Your task to perform on an android device: turn on the 12-hour format for clock Image 0: 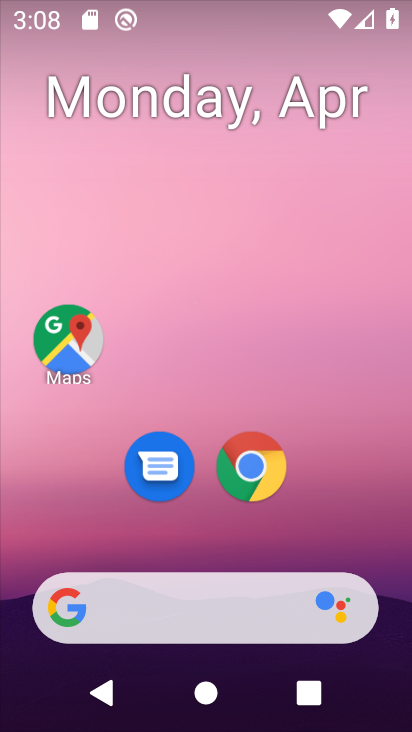
Step 0: drag from (309, 485) to (291, 163)
Your task to perform on an android device: turn on the 12-hour format for clock Image 1: 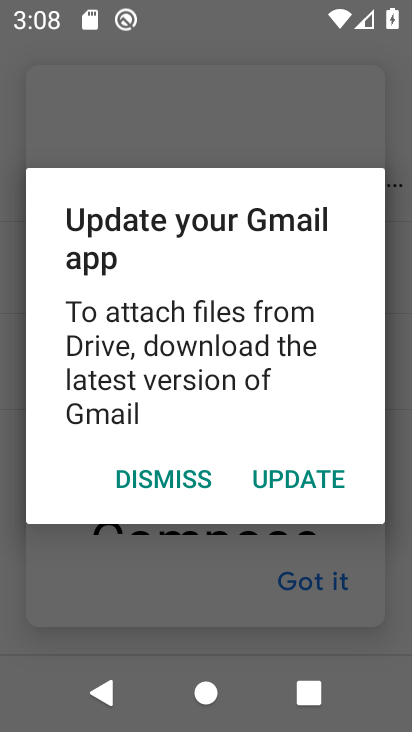
Step 1: press home button
Your task to perform on an android device: turn on the 12-hour format for clock Image 2: 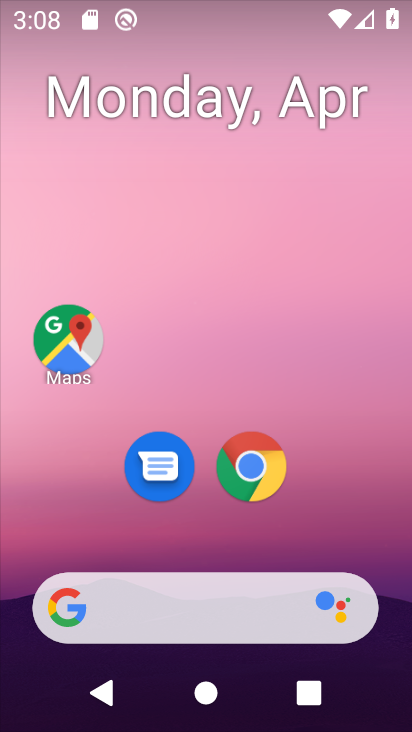
Step 2: drag from (356, 505) to (336, 133)
Your task to perform on an android device: turn on the 12-hour format for clock Image 3: 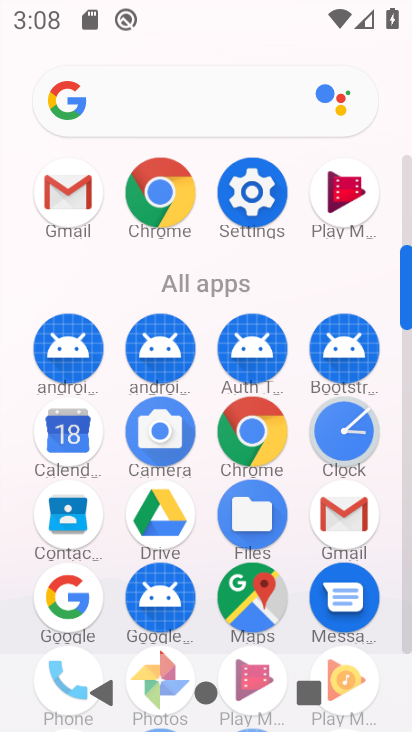
Step 3: drag from (294, 635) to (314, 482)
Your task to perform on an android device: turn on the 12-hour format for clock Image 4: 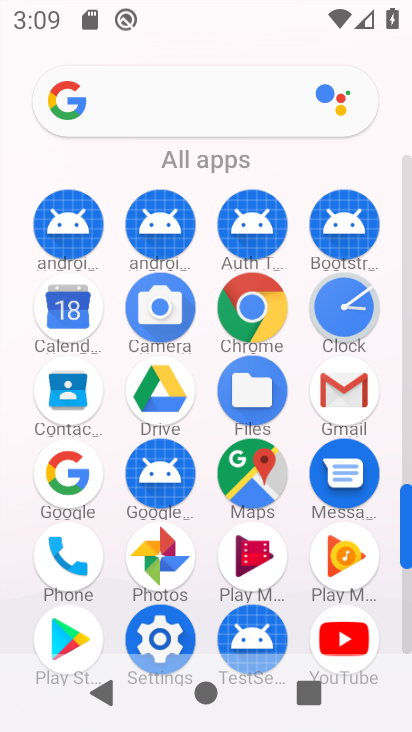
Step 4: click (346, 321)
Your task to perform on an android device: turn on the 12-hour format for clock Image 5: 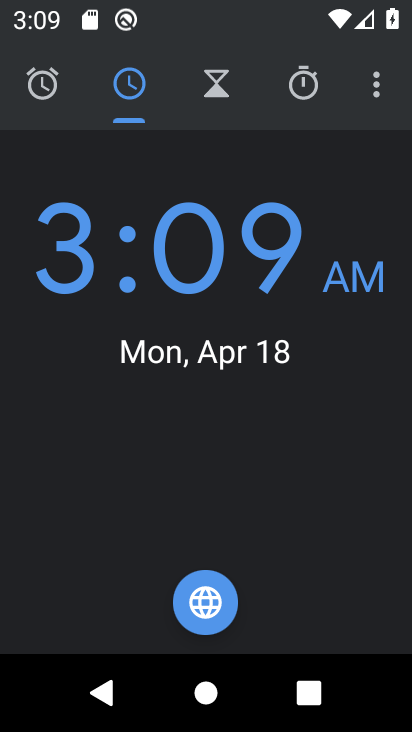
Step 5: click (375, 90)
Your task to perform on an android device: turn on the 12-hour format for clock Image 6: 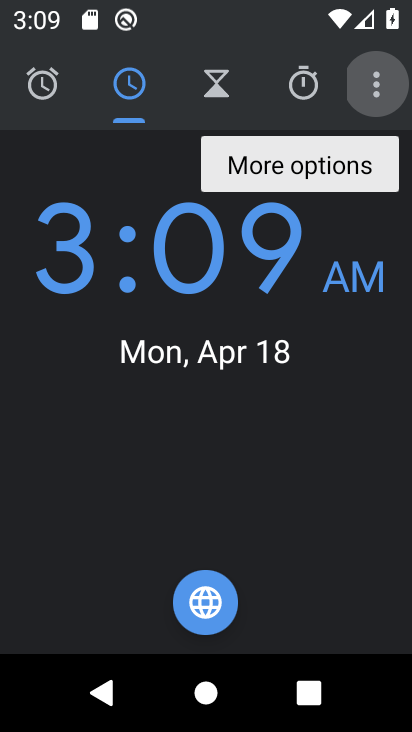
Step 6: click (382, 80)
Your task to perform on an android device: turn on the 12-hour format for clock Image 7: 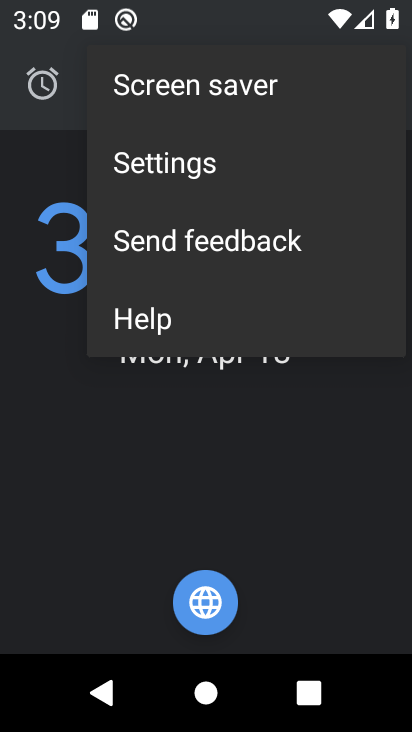
Step 7: click (197, 166)
Your task to perform on an android device: turn on the 12-hour format for clock Image 8: 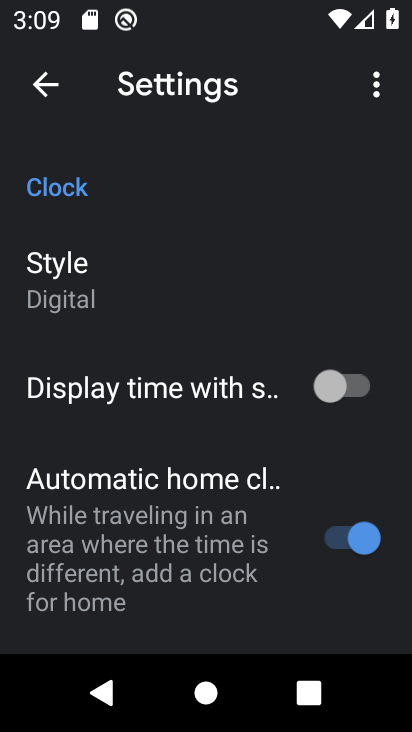
Step 8: drag from (189, 579) to (179, 197)
Your task to perform on an android device: turn on the 12-hour format for clock Image 9: 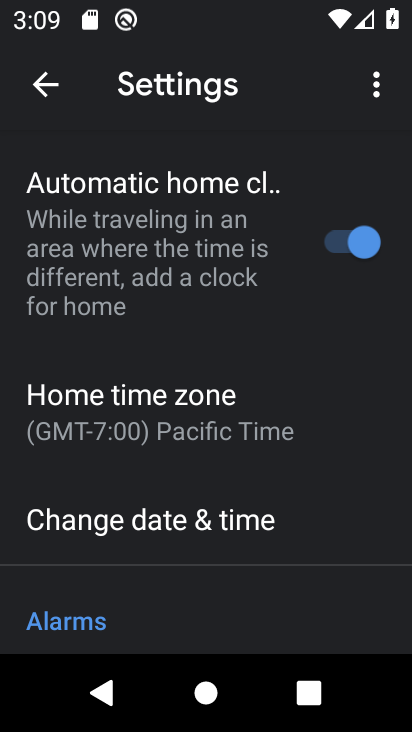
Step 9: drag from (177, 584) to (183, 325)
Your task to perform on an android device: turn on the 12-hour format for clock Image 10: 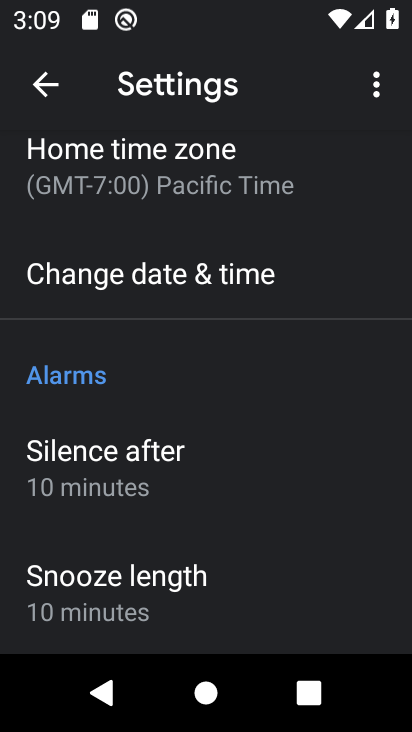
Step 10: click (149, 295)
Your task to perform on an android device: turn on the 12-hour format for clock Image 11: 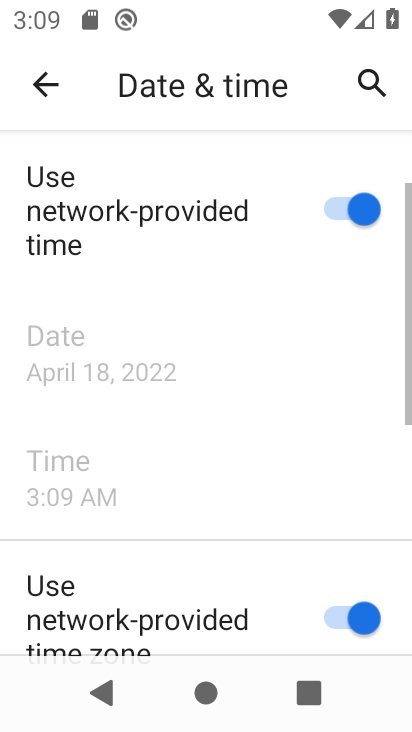
Step 11: task complete